Your task to perform on an android device: Open Google Chrome Image 0: 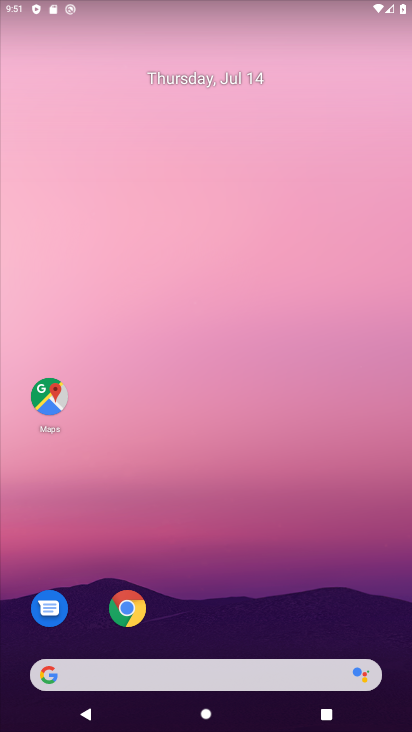
Step 0: click (181, 628)
Your task to perform on an android device: Open Google Chrome Image 1: 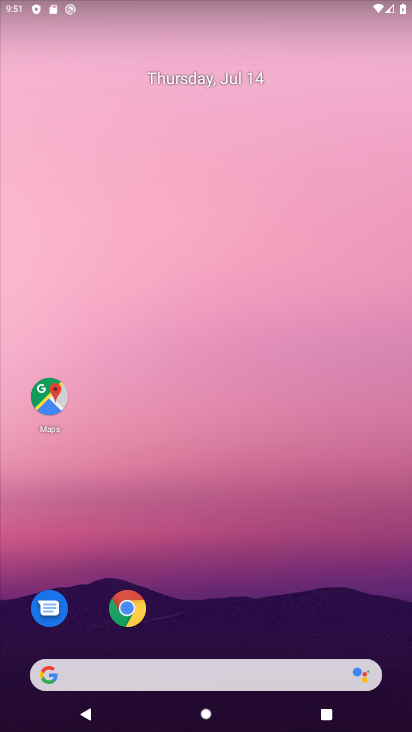
Step 1: click (130, 616)
Your task to perform on an android device: Open Google Chrome Image 2: 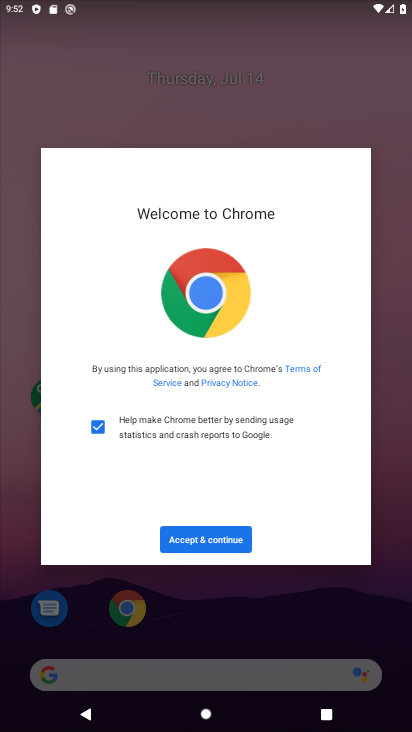
Step 2: click (213, 540)
Your task to perform on an android device: Open Google Chrome Image 3: 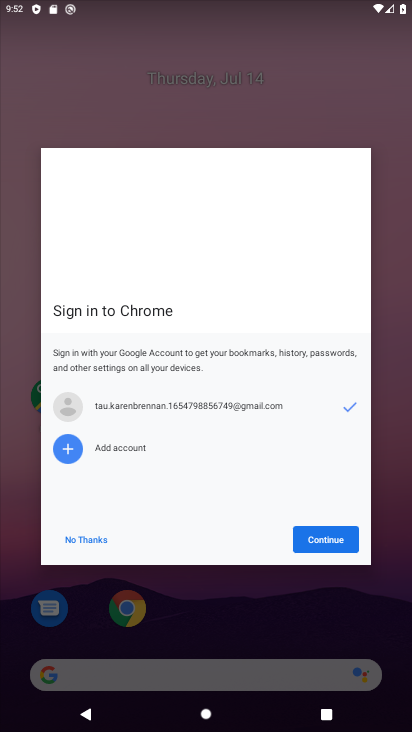
Step 3: click (350, 533)
Your task to perform on an android device: Open Google Chrome Image 4: 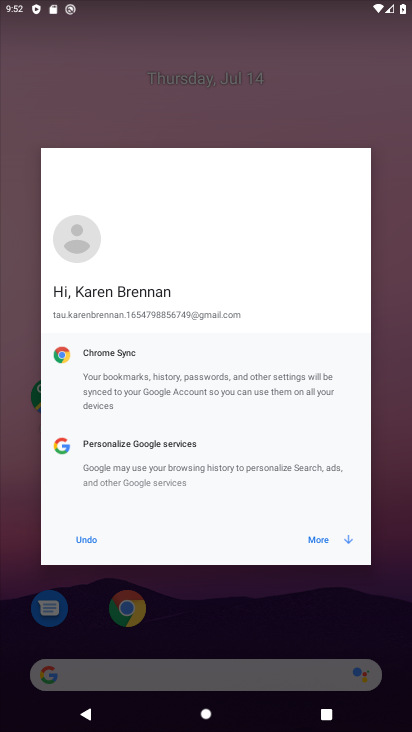
Step 4: click (309, 536)
Your task to perform on an android device: Open Google Chrome Image 5: 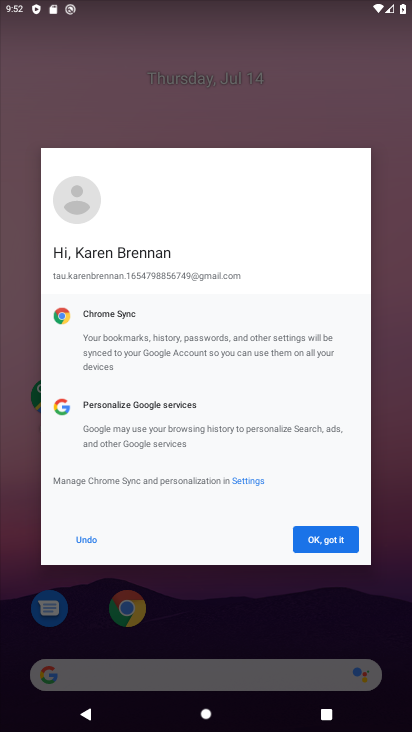
Step 5: click (309, 536)
Your task to perform on an android device: Open Google Chrome Image 6: 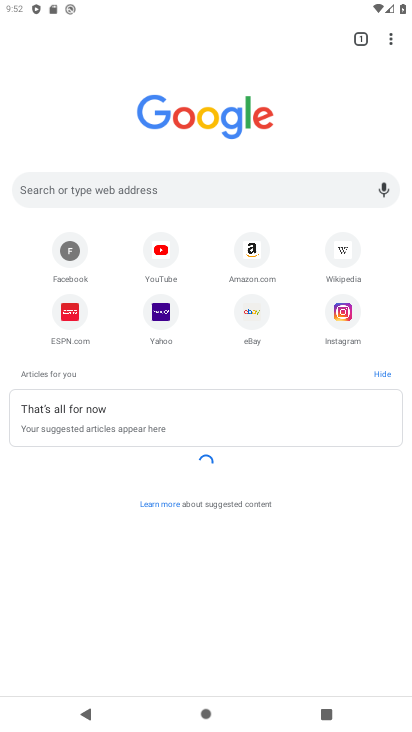
Step 6: task complete